Your task to perform on an android device: Open the stopwatch Image 0: 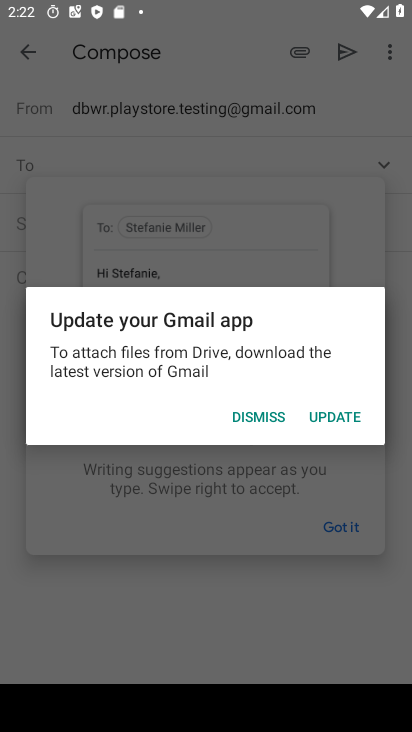
Step 0: press home button
Your task to perform on an android device: Open the stopwatch Image 1: 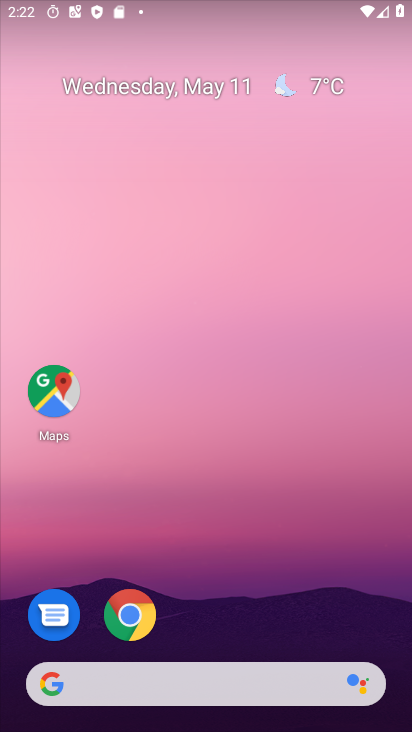
Step 1: drag from (159, 666) to (80, 40)
Your task to perform on an android device: Open the stopwatch Image 2: 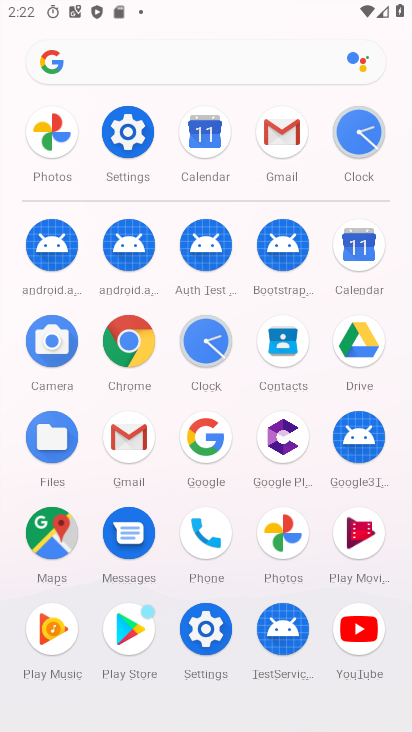
Step 2: click (354, 140)
Your task to perform on an android device: Open the stopwatch Image 3: 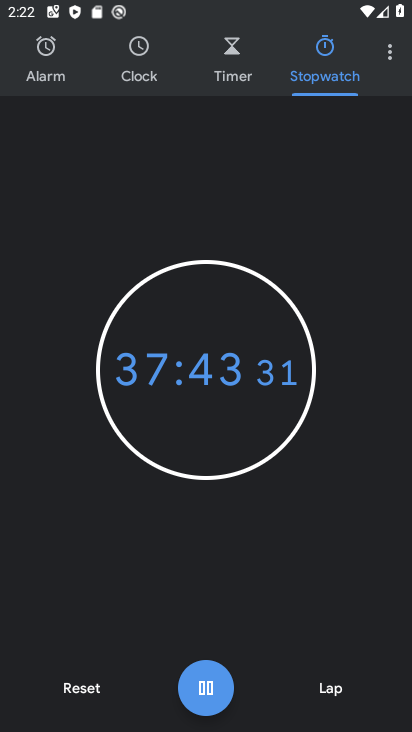
Step 3: task complete